Your task to perform on an android device: change keyboard looks Image 0: 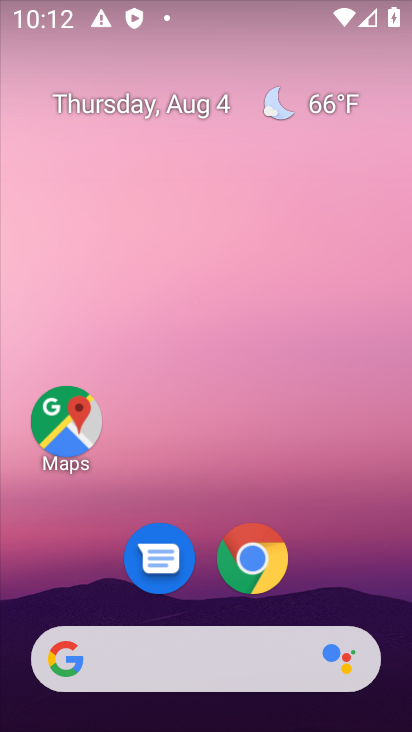
Step 0: drag from (358, 496) to (386, 38)
Your task to perform on an android device: change keyboard looks Image 1: 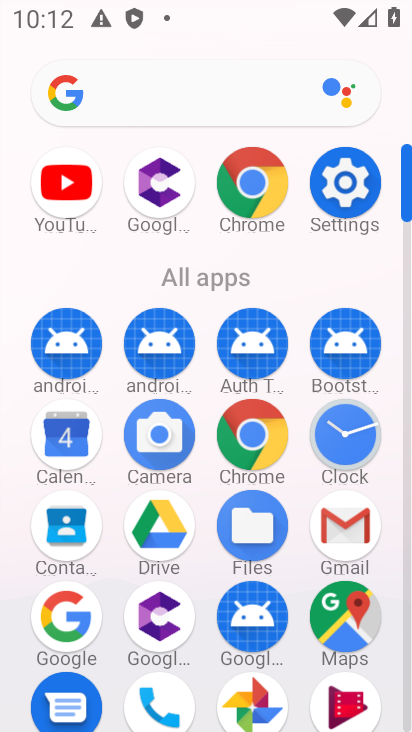
Step 1: click (359, 187)
Your task to perform on an android device: change keyboard looks Image 2: 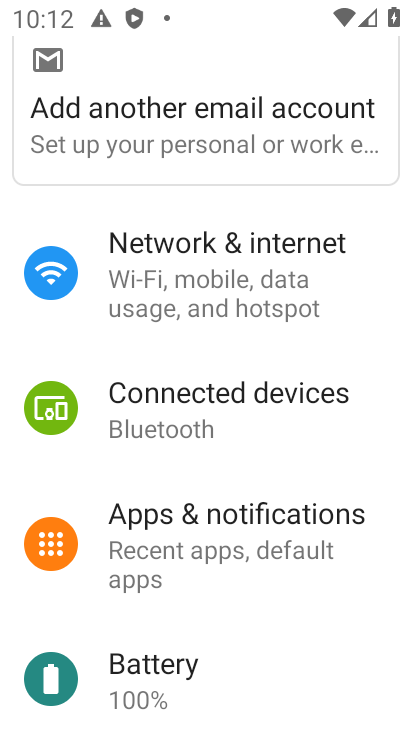
Step 2: drag from (313, 641) to (304, 138)
Your task to perform on an android device: change keyboard looks Image 3: 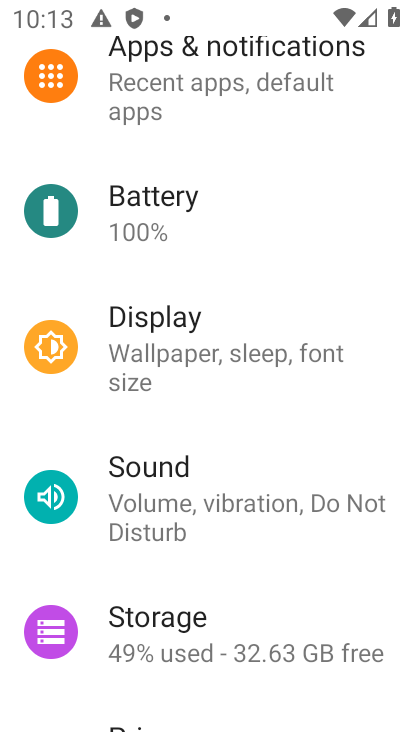
Step 3: drag from (281, 589) to (373, 185)
Your task to perform on an android device: change keyboard looks Image 4: 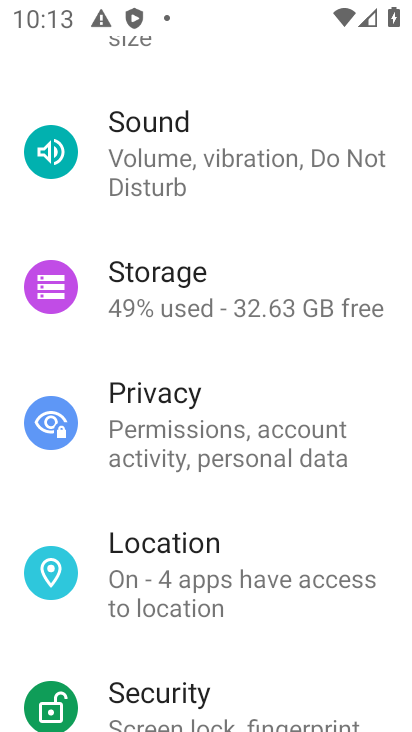
Step 4: drag from (304, 669) to (356, 188)
Your task to perform on an android device: change keyboard looks Image 5: 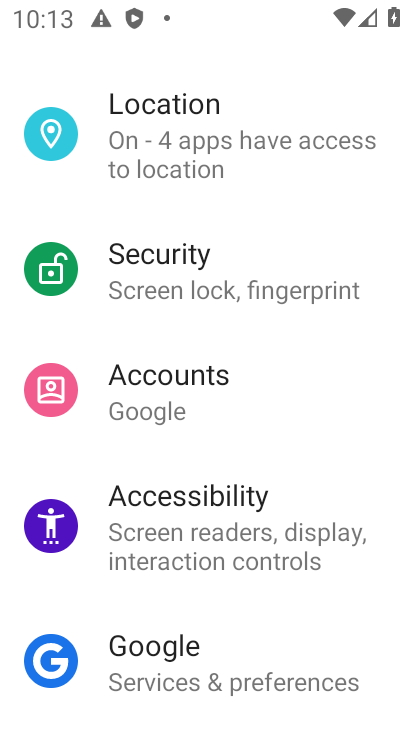
Step 5: drag from (323, 664) to (372, 245)
Your task to perform on an android device: change keyboard looks Image 6: 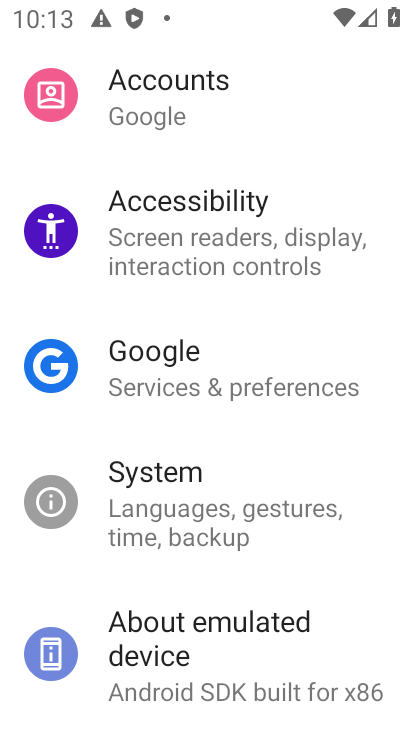
Step 6: click (205, 502)
Your task to perform on an android device: change keyboard looks Image 7: 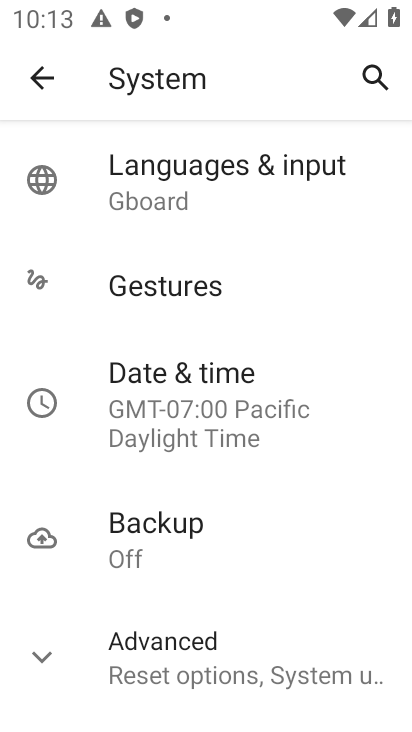
Step 7: click (222, 177)
Your task to perform on an android device: change keyboard looks Image 8: 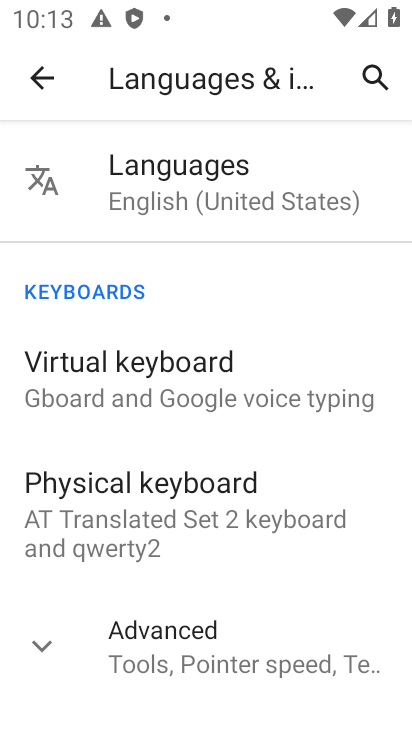
Step 8: click (212, 409)
Your task to perform on an android device: change keyboard looks Image 9: 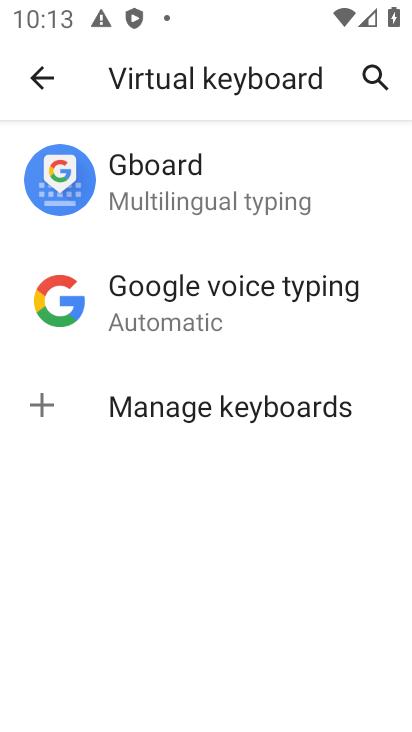
Step 9: click (284, 196)
Your task to perform on an android device: change keyboard looks Image 10: 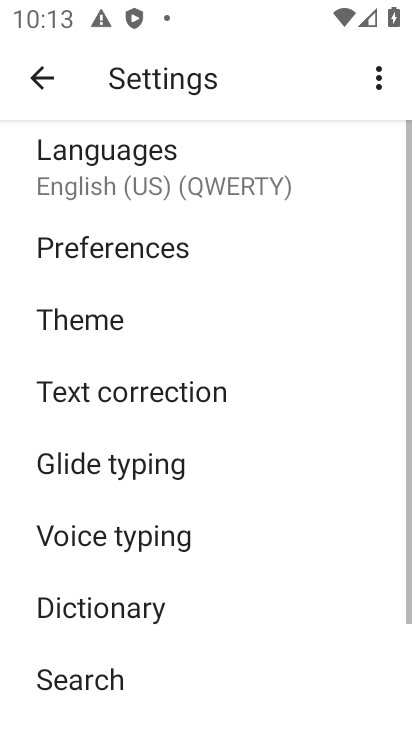
Step 10: click (126, 316)
Your task to perform on an android device: change keyboard looks Image 11: 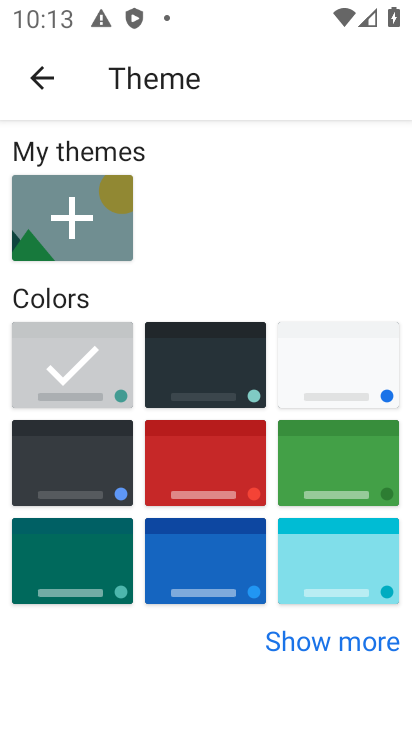
Step 11: click (355, 366)
Your task to perform on an android device: change keyboard looks Image 12: 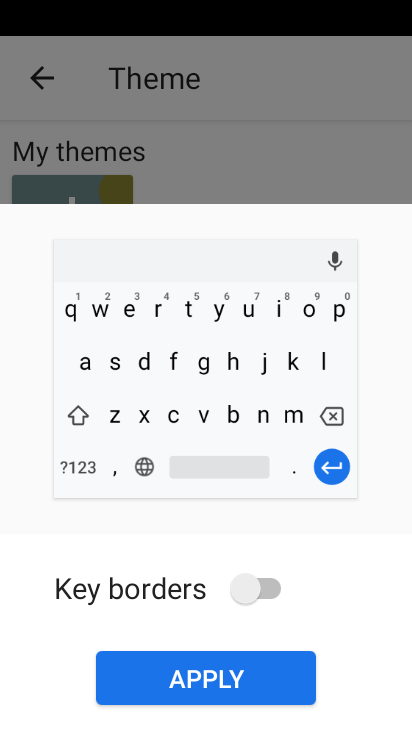
Step 12: click (285, 673)
Your task to perform on an android device: change keyboard looks Image 13: 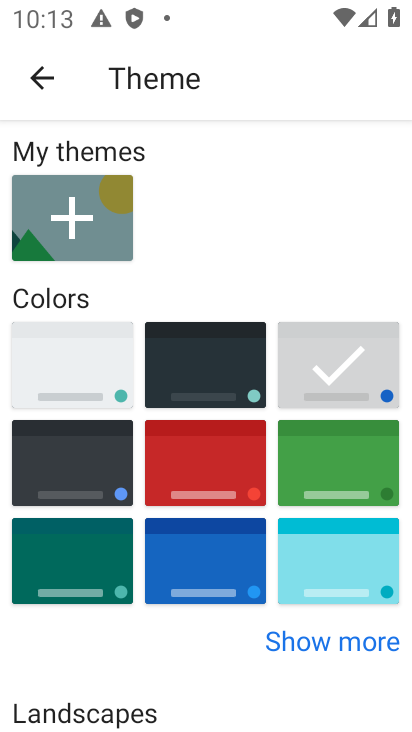
Step 13: task complete